Your task to perform on an android device: Open Google Maps Image 0: 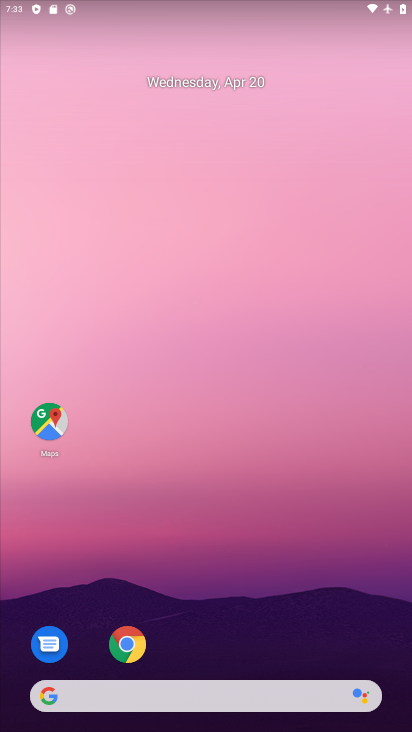
Step 0: drag from (355, 629) to (296, 58)
Your task to perform on an android device: Open Google Maps Image 1: 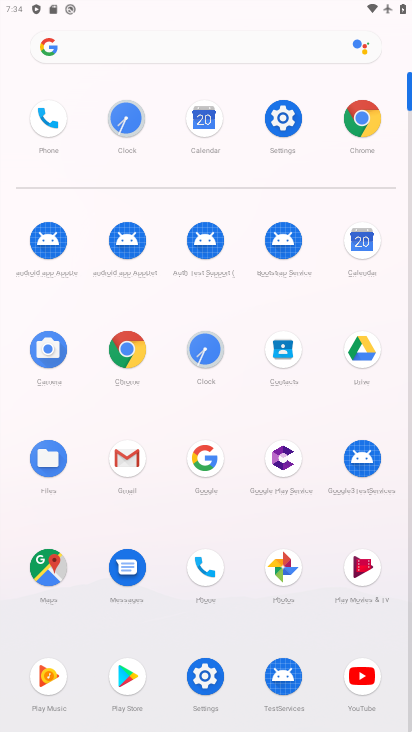
Step 1: click (34, 568)
Your task to perform on an android device: Open Google Maps Image 2: 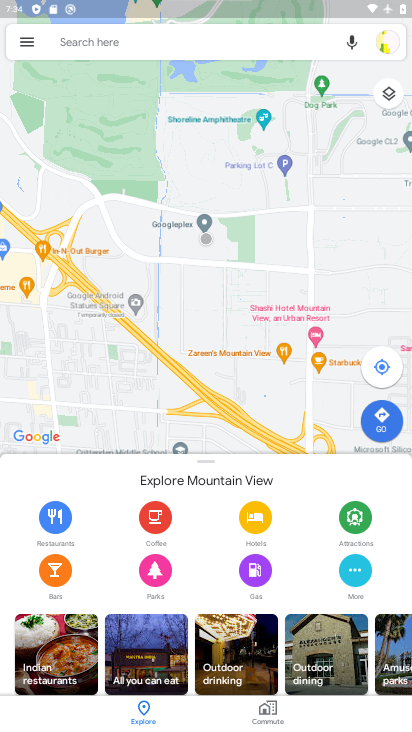
Step 2: task complete